Your task to perform on an android device: What's on my calendar today? Image 0: 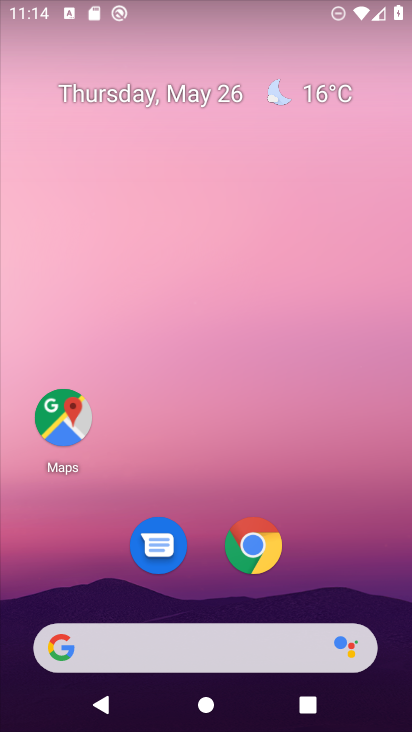
Step 0: drag from (294, 610) to (226, 160)
Your task to perform on an android device: What's on my calendar today? Image 1: 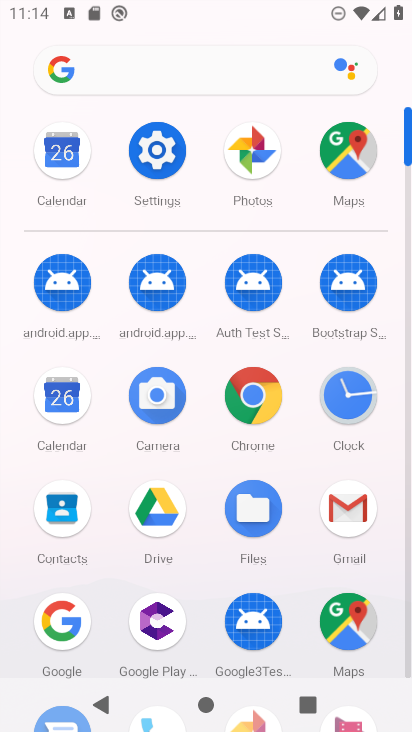
Step 1: click (62, 415)
Your task to perform on an android device: What's on my calendar today? Image 2: 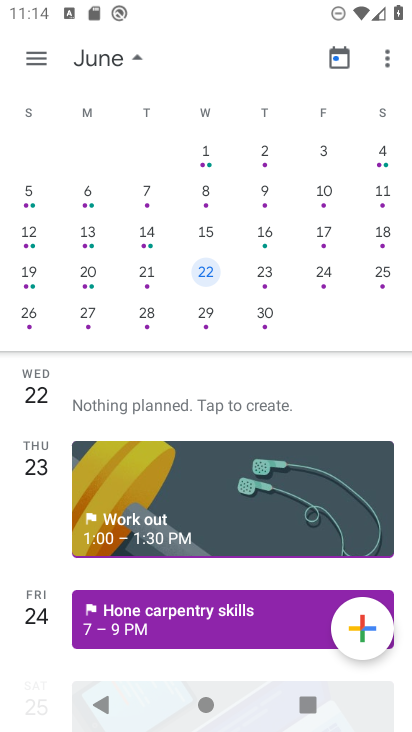
Step 2: drag from (121, 226) to (363, 239)
Your task to perform on an android device: What's on my calendar today? Image 3: 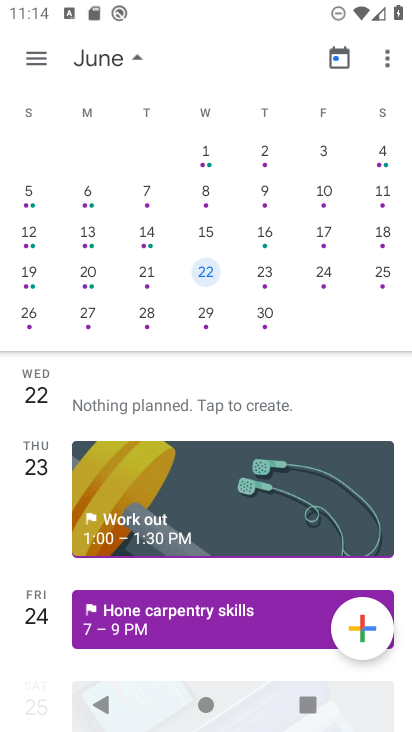
Step 3: drag from (140, 219) to (404, 190)
Your task to perform on an android device: What's on my calendar today? Image 4: 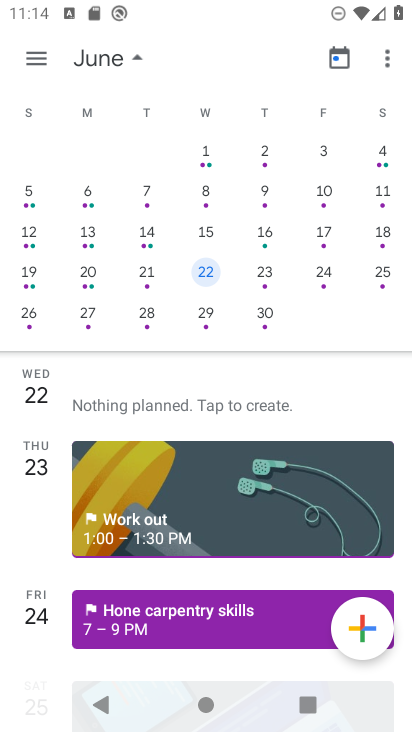
Step 4: drag from (181, 215) to (375, 205)
Your task to perform on an android device: What's on my calendar today? Image 5: 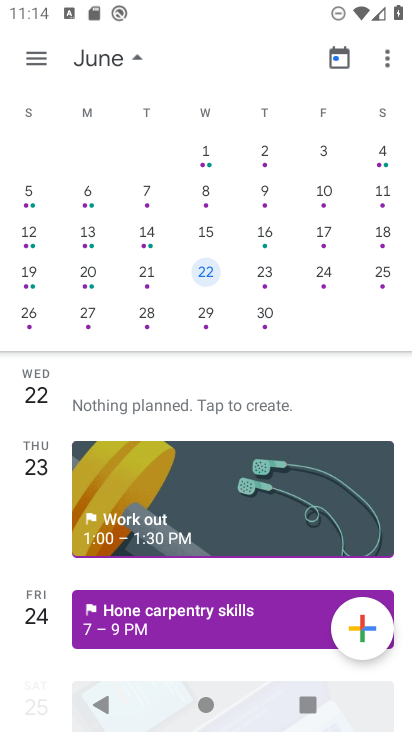
Step 5: drag from (54, 140) to (356, 117)
Your task to perform on an android device: What's on my calendar today? Image 6: 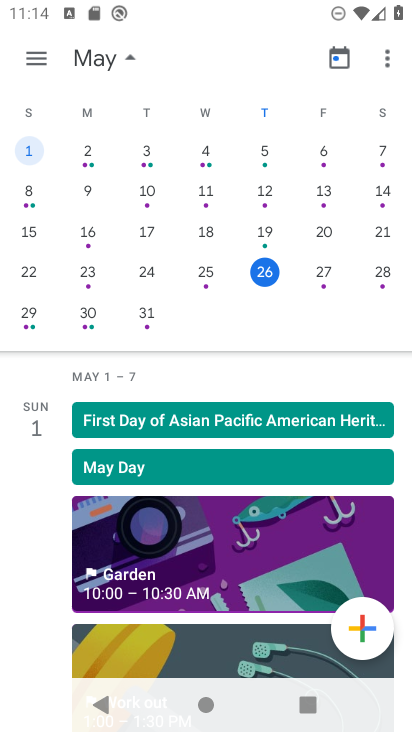
Step 6: click (315, 278)
Your task to perform on an android device: What's on my calendar today? Image 7: 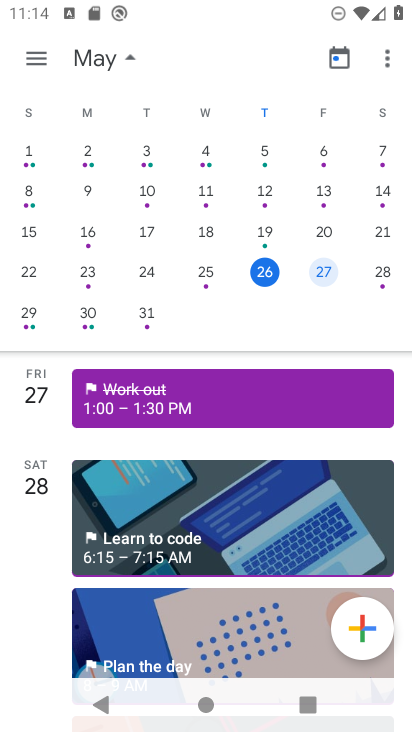
Step 7: task complete